Your task to perform on an android device: Go to CNN.com Image 0: 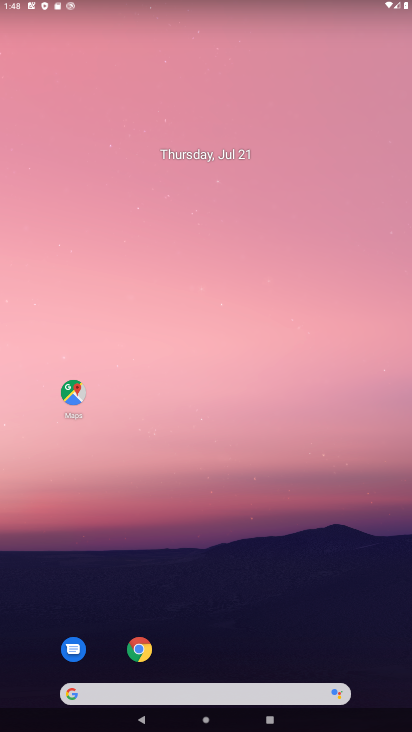
Step 0: click (138, 647)
Your task to perform on an android device: Go to CNN.com Image 1: 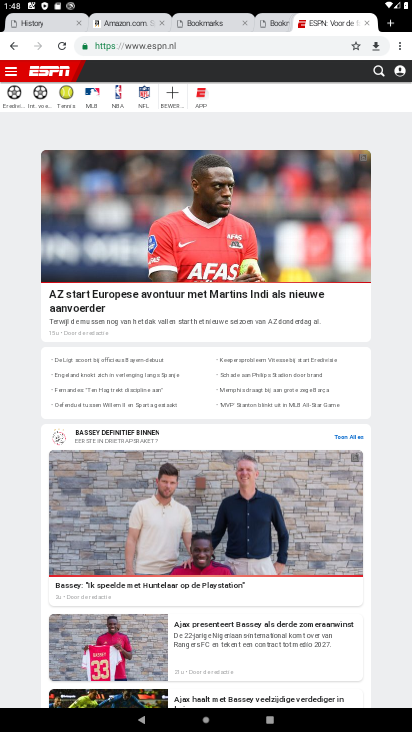
Step 1: click (401, 51)
Your task to perform on an android device: Go to CNN.com Image 2: 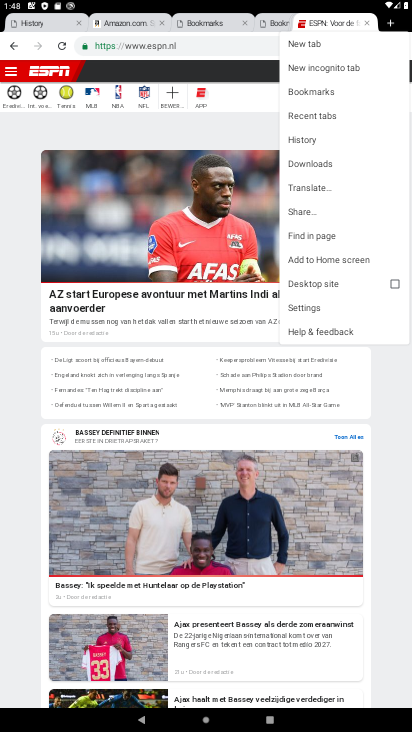
Step 2: click (308, 44)
Your task to perform on an android device: Go to CNN.com Image 3: 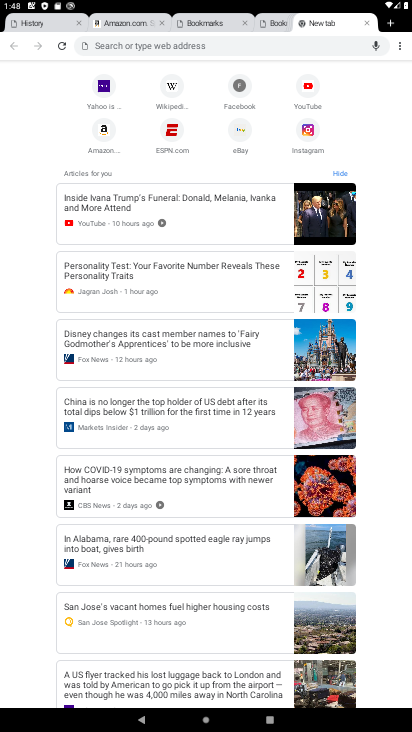
Step 3: click (229, 43)
Your task to perform on an android device: Go to CNN.com Image 4: 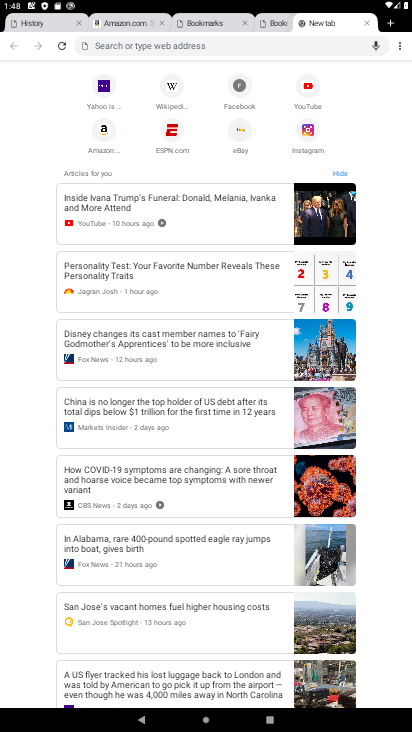
Step 4: type "CNN.com"
Your task to perform on an android device: Go to CNN.com Image 5: 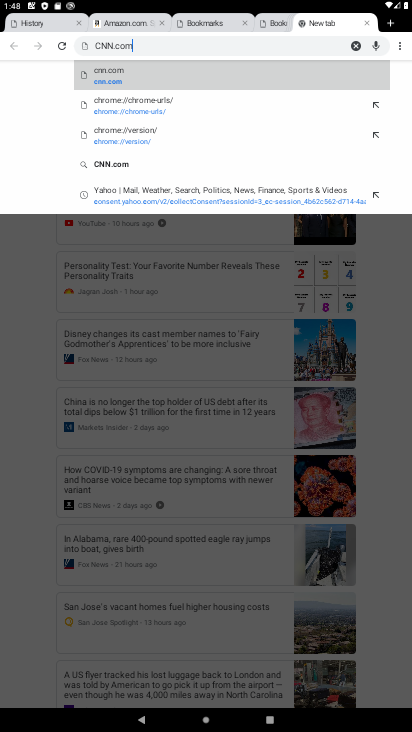
Step 5: type ""
Your task to perform on an android device: Go to CNN.com Image 6: 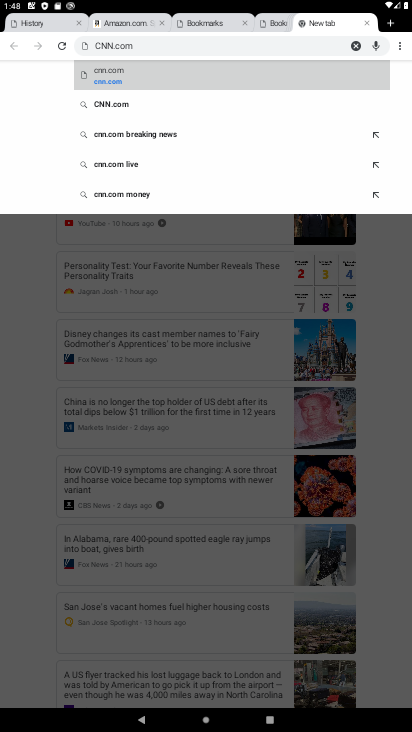
Step 6: click (117, 73)
Your task to perform on an android device: Go to CNN.com Image 7: 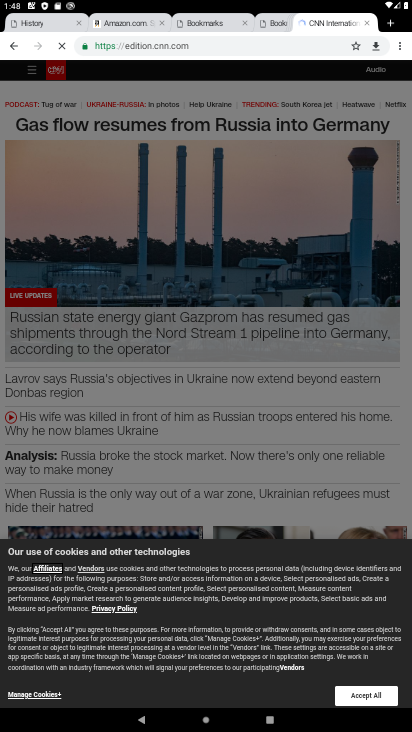
Step 7: task complete